Your task to perform on an android device: Show the shopping cart on ebay.com. Search for razer huntsman on ebay.com, select the first entry, and add it to the cart. Image 0: 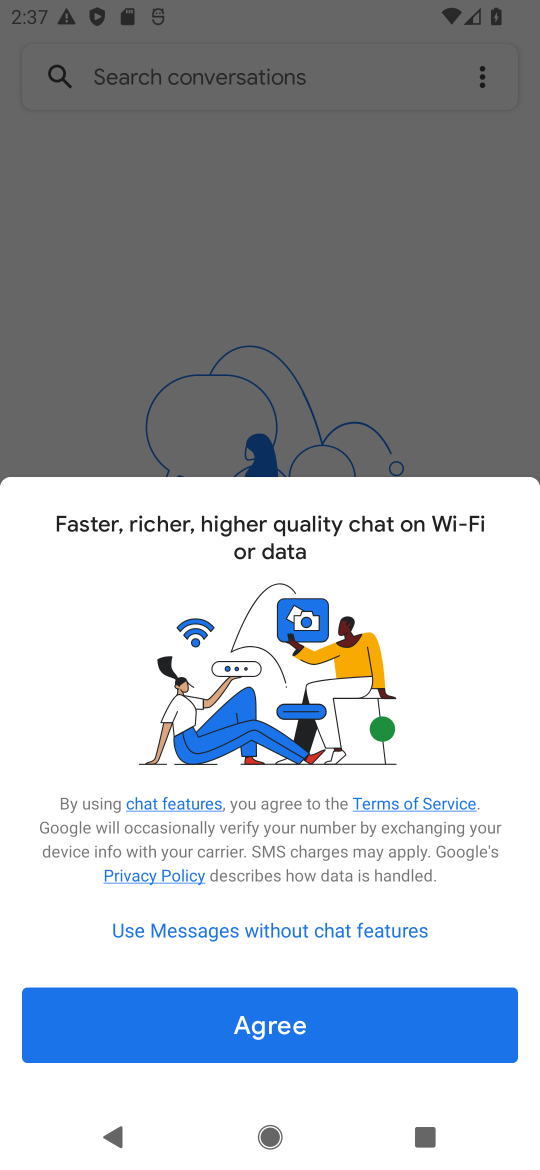
Step 0: press home button
Your task to perform on an android device: Show the shopping cart on ebay.com. Search for razer huntsman on ebay.com, select the first entry, and add it to the cart. Image 1: 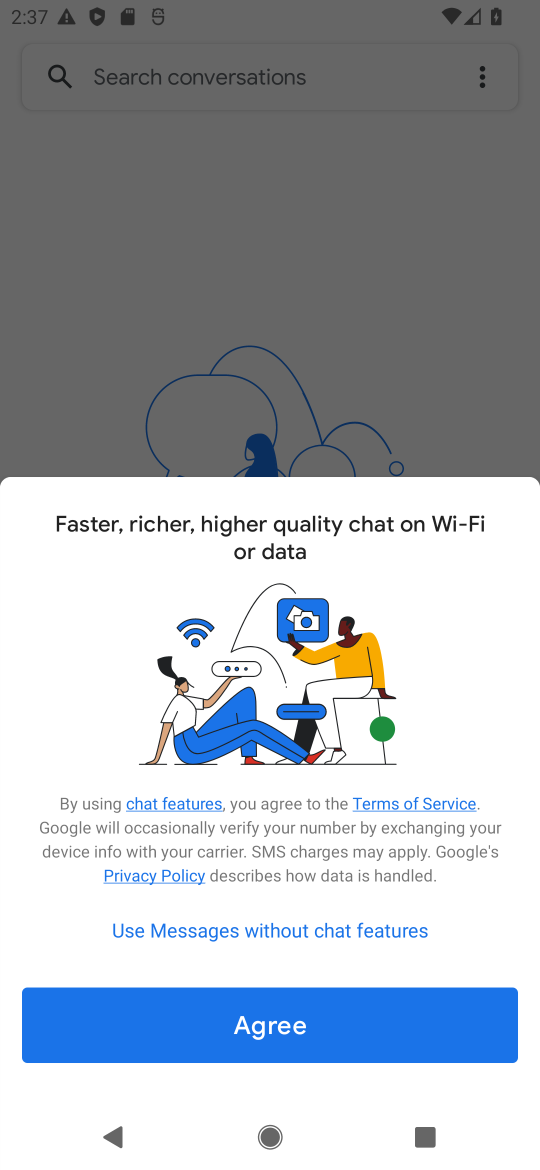
Step 1: press home button
Your task to perform on an android device: Show the shopping cart on ebay.com. Search for razer huntsman on ebay.com, select the first entry, and add it to the cart. Image 2: 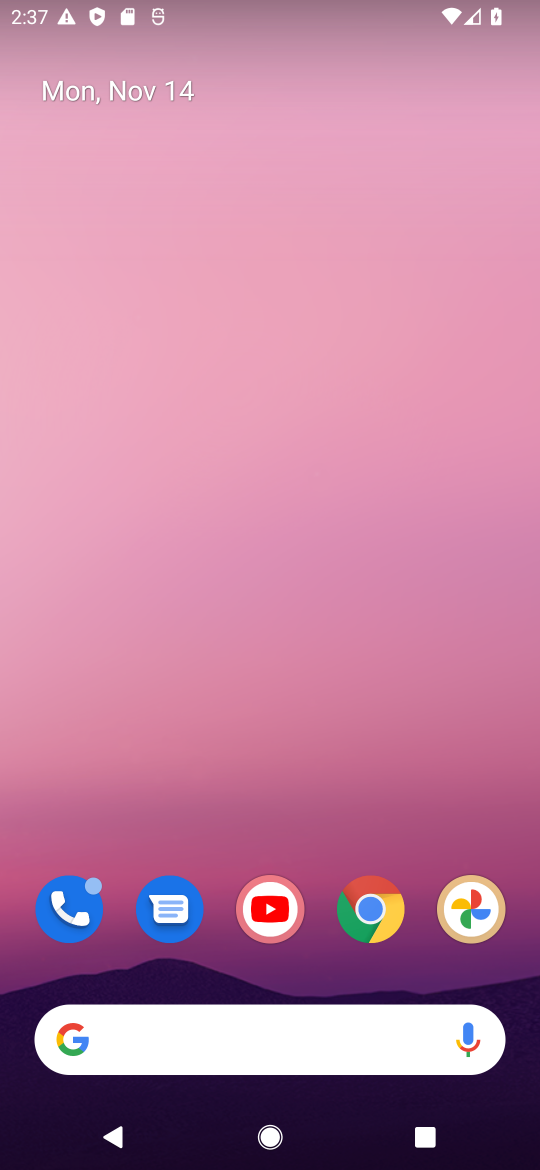
Step 2: drag from (232, 973) to (282, 120)
Your task to perform on an android device: Show the shopping cart on ebay.com. Search for razer huntsman on ebay.com, select the first entry, and add it to the cart. Image 3: 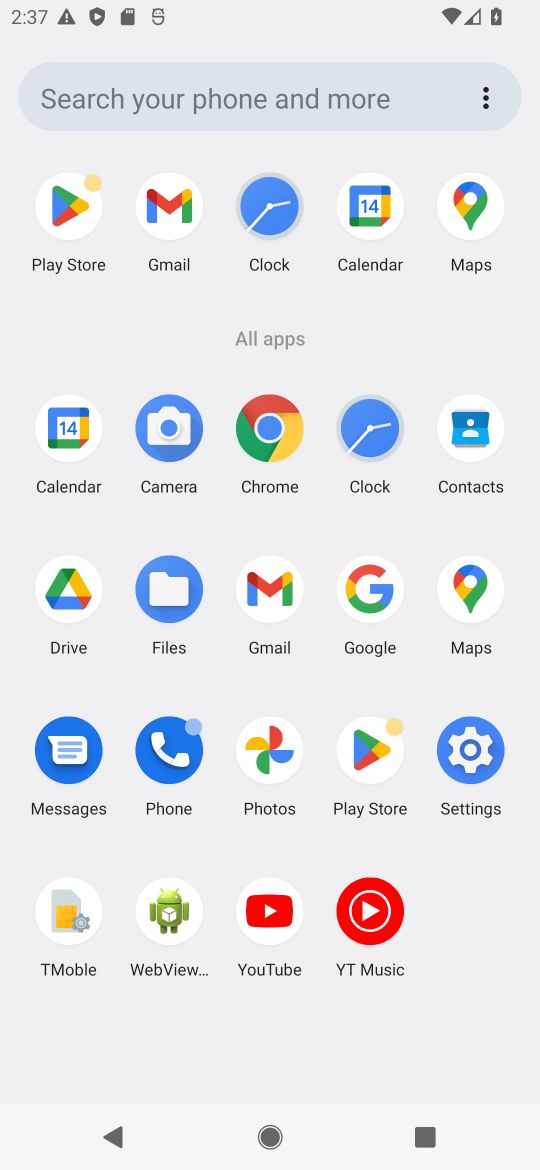
Step 3: click (266, 435)
Your task to perform on an android device: Show the shopping cart on ebay.com. Search for razer huntsman on ebay.com, select the first entry, and add it to the cart. Image 4: 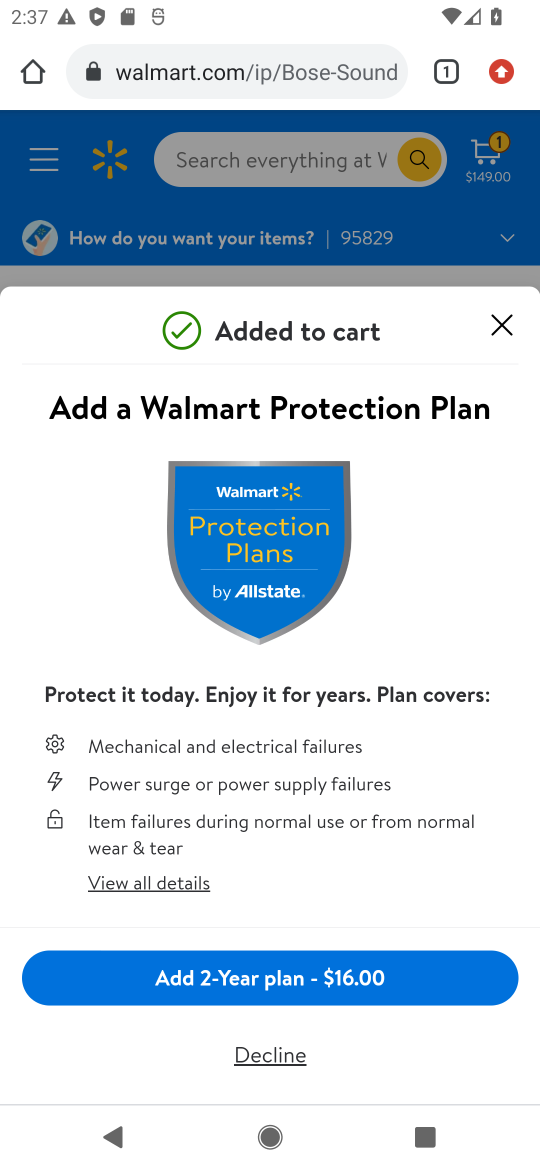
Step 4: click (214, 66)
Your task to perform on an android device: Show the shopping cart on ebay.com. Search for razer huntsman on ebay.com, select the first entry, and add it to the cart. Image 5: 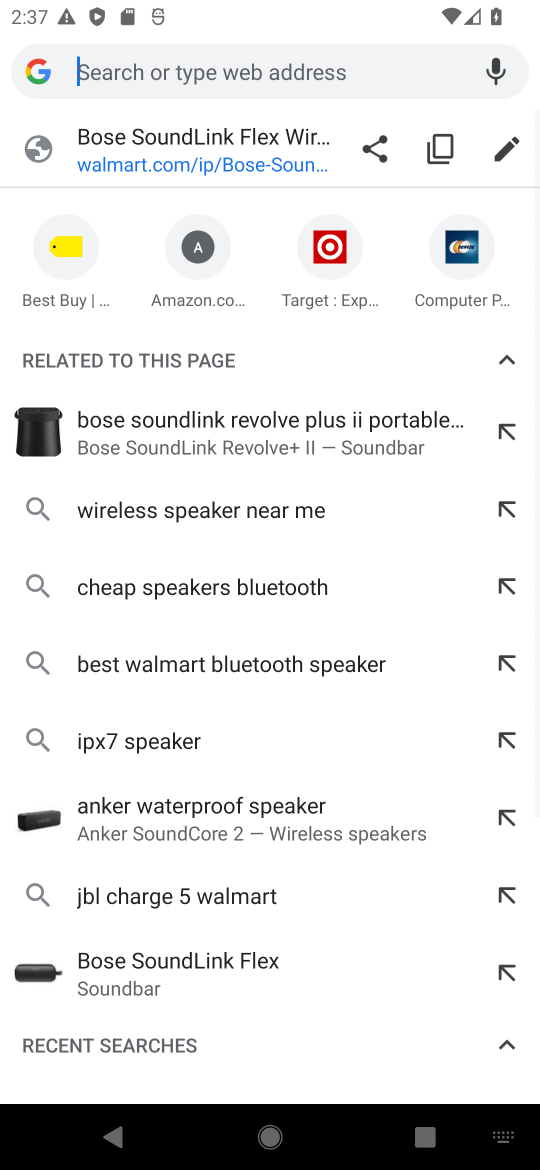
Step 5: type "ebay.com"
Your task to perform on an android device: Show the shopping cart on ebay.com. Search for razer huntsman on ebay.com, select the first entry, and add it to the cart. Image 6: 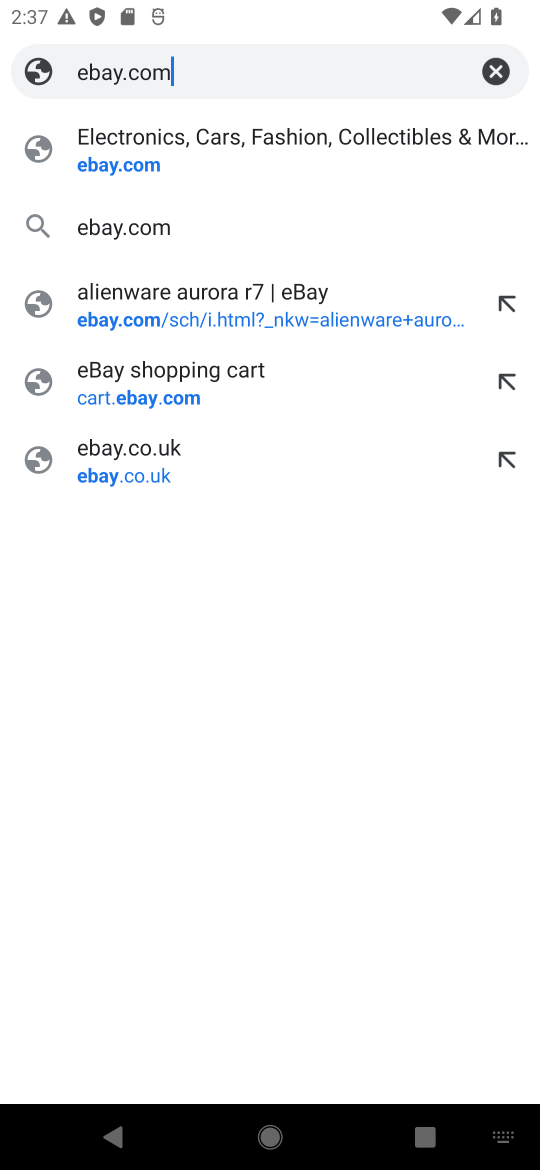
Step 6: press enter
Your task to perform on an android device: Show the shopping cart on ebay.com. Search for razer huntsman on ebay.com, select the first entry, and add it to the cart. Image 7: 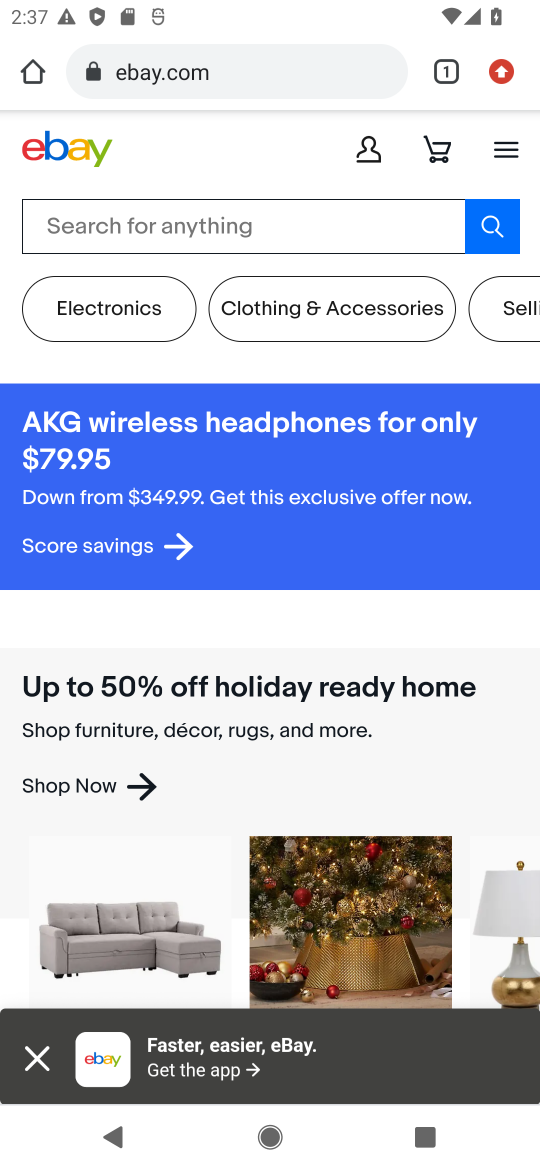
Step 7: click (440, 144)
Your task to perform on an android device: Show the shopping cart on ebay.com. Search for razer huntsman on ebay.com, select the first entry, and add it to the cart. Image 8: 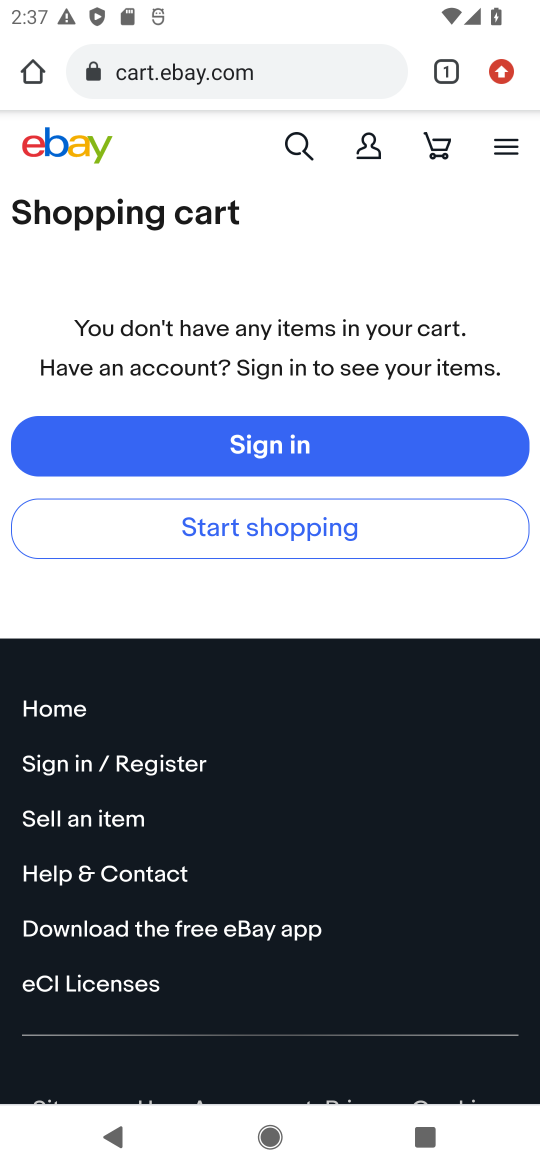
Step 8: click (287, 149)
Your task to perform on an android device: Show the shopping cart on ebay.com. Search for razer huntsman on ebay.com, select the first entry, and add it to the cart. Image 9: 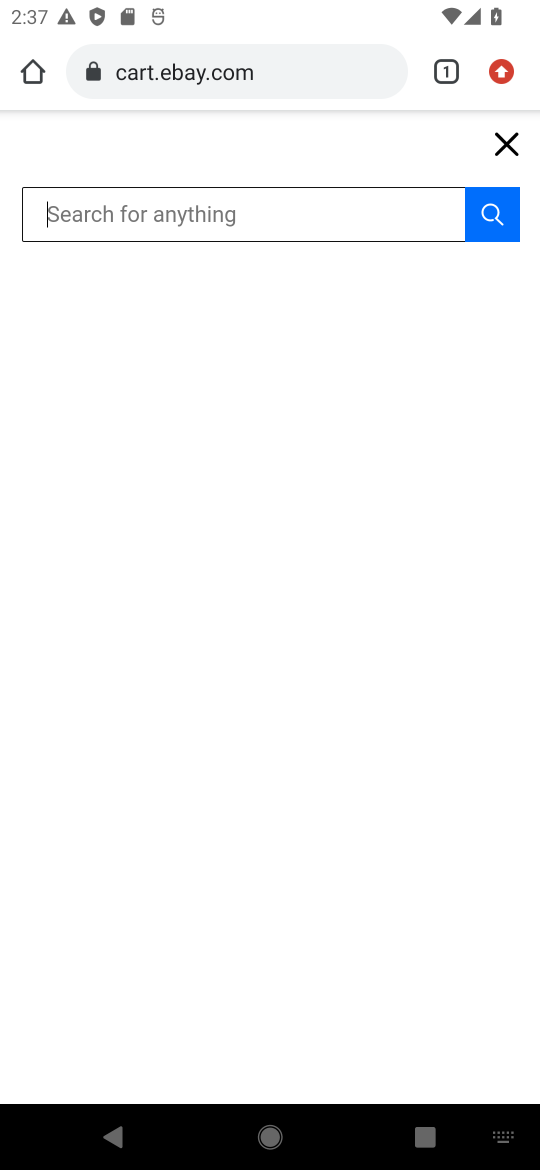
Step 9: type "razer huntsman"
Your task to perform on an android device: Show the shopping cart on ebay.com. Search for razer huntsman on ebay.com, select the first entry, and add it to the cart. Image 10: 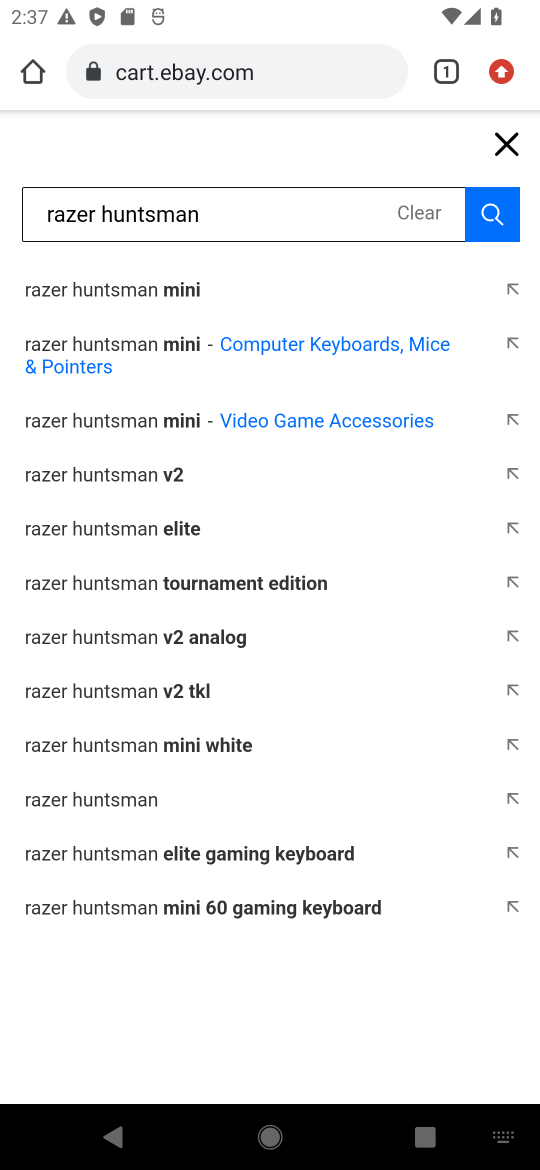
Step 10: press enter
Your task to perform on an android device: Show the shopping cart on ebay.com. Search for razer huntsman on ebay.com, select the first entry, and add it to the cart. Image 11: 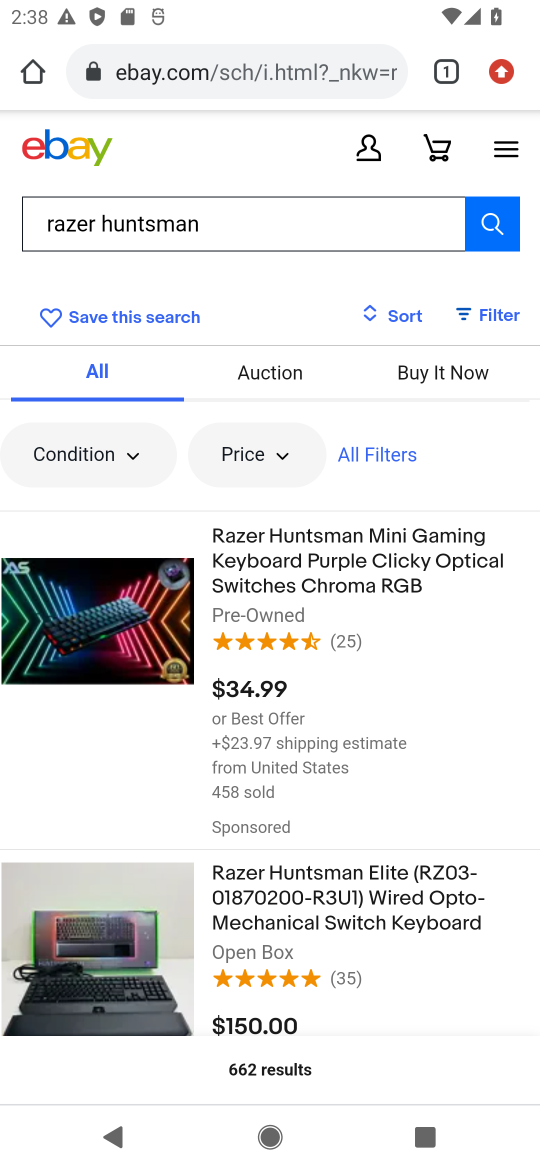
Step 11: click (101, 624)
Your task to perform on an android device: Show the shopping cart on ebay.com. Search for razer huntsman on ebay.com, select the first entry, and add it to the cart. Image 12: 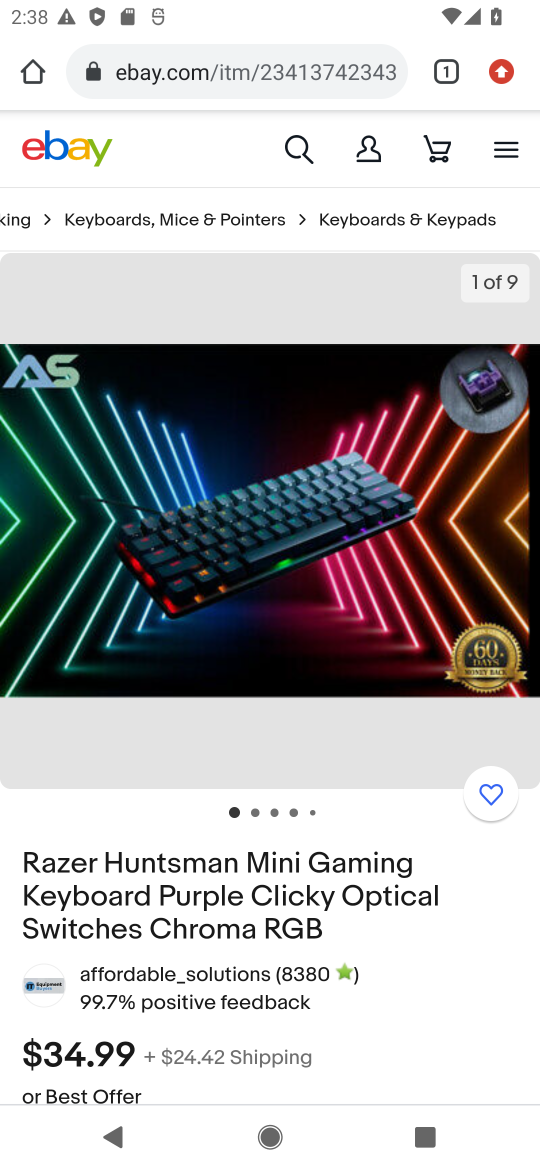
Step 12: drag from (343, 898) to (470, 138)
Your task to perform on an android device: Show the shopping cart on ebay.com. Search for razer huntsman on ebay.com, select the first entry, and add it to the cart. Image 13: 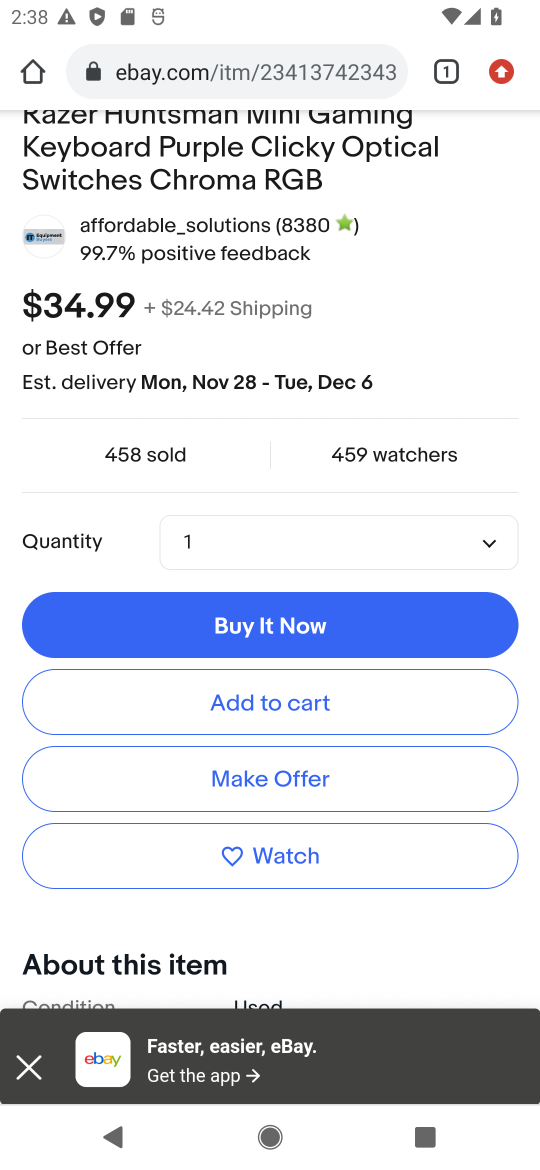
Step 13: click (334, 693)
Your task to perform on an android device: Show the shopping cart on ebay.com. Search for razer huntsman on ebay.com, select the first entry, and add it to the cart. Image 14: 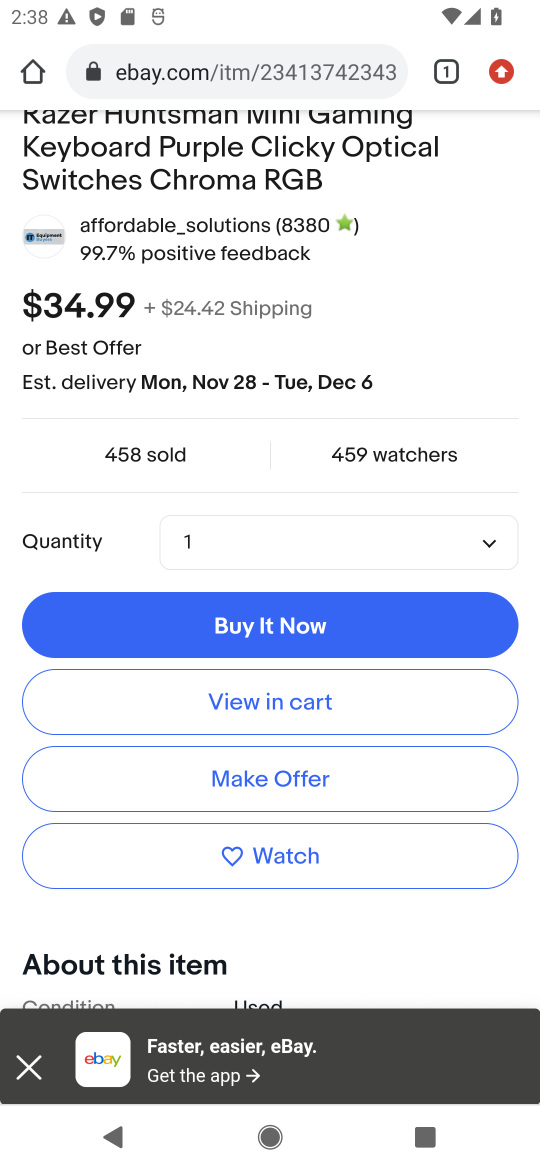
Step 14: task complete